Your task to perform on an android device: toggle javascript in the chrome app Image 0: 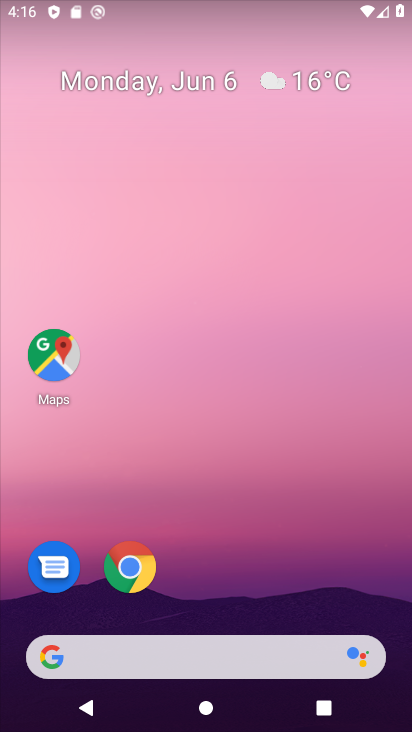
Step 0: click (127, 580)
Your task to perform on an android device: toggle javascript in the chrome app Image 1: 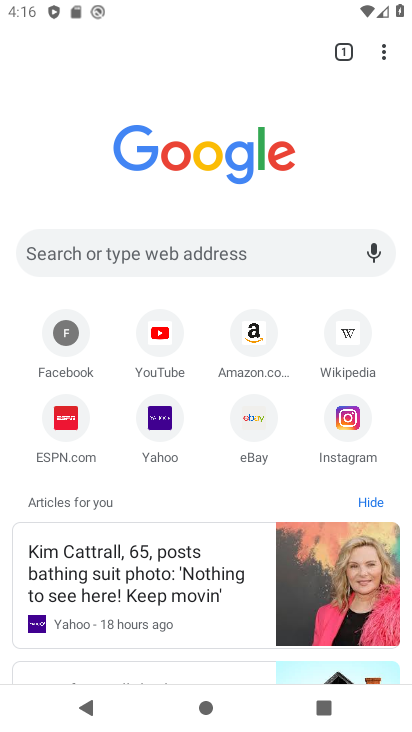
Step 1: drag from (375, 43) to (249, 430)
Your task to perform on an android device: toggle javascript in the chrome app Image 2: 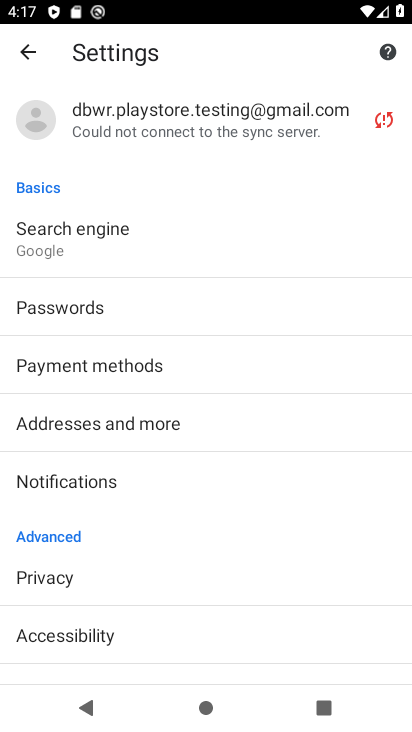
Step 2: drag from (141, 596) to (328, 291)
Your task to perform on an android device: toggle javascript in the chrome app Image 3: 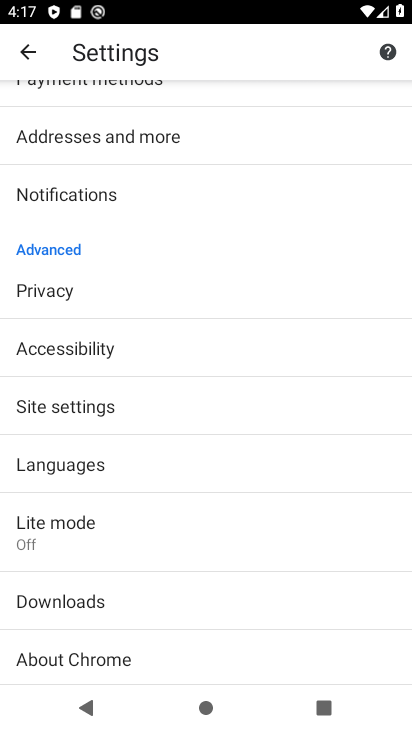
Step 3: click (141, 419)
Your task to perform on an android device: toggle javascript in the chrome app Image 4: 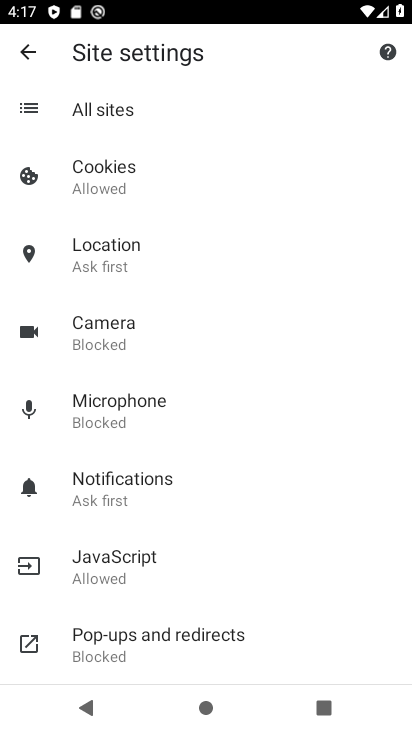
Step 4: drag from (199, 619) to (276, 377)
Your task to perform on an android device: toggle javascript in the chrome app Image 5: 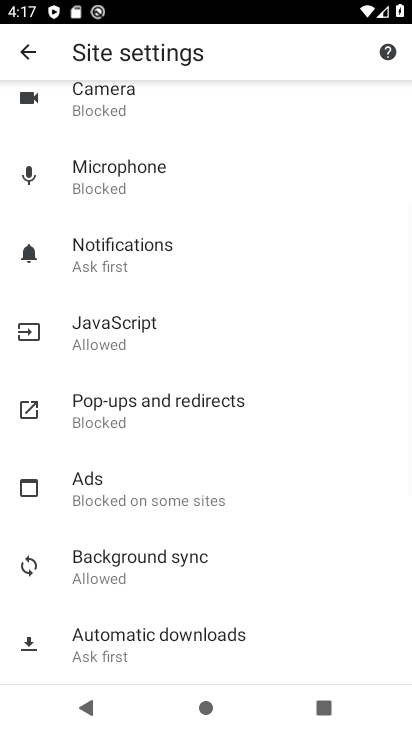
Step 5: click (221, 353)
Your task to perform on an android device: toggle javascript in the chrome app Image 6: 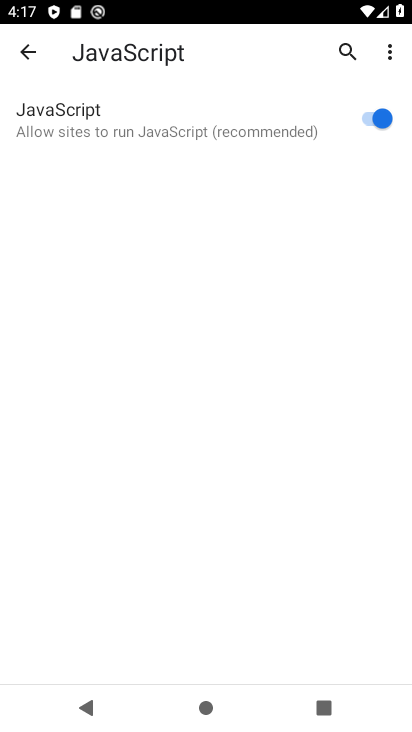
Step 6: click (373, 111)
Your task to perform on an android device: toggle javascript in the chrome app Image 7: 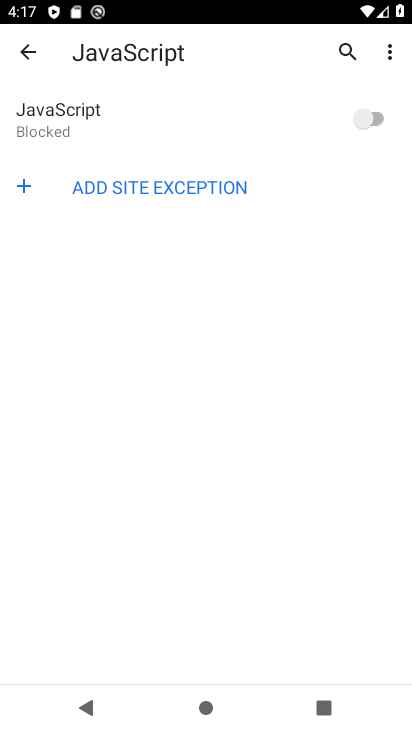
Step 7: task complete